Your task to perform on an android device: What's on my calendar today? Image 0: 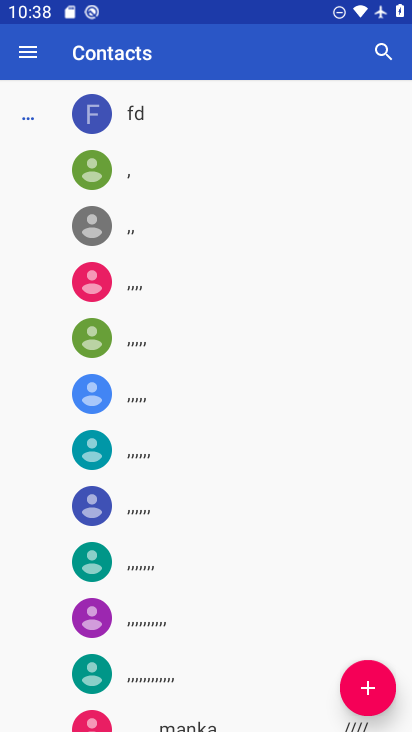
Step 0: press home button
Your task to perform on an android device: What's on my calendar today? Image 1: 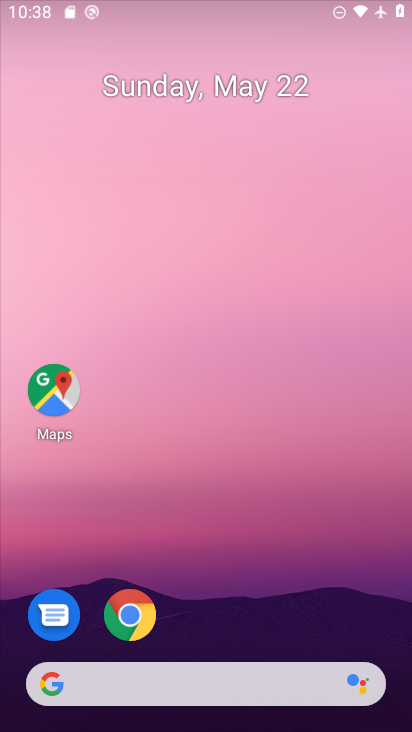
Step 1: drag from (305, 566) to (33, 274)
Your task to perform on an android device: What's on my calendar today? Image 2: 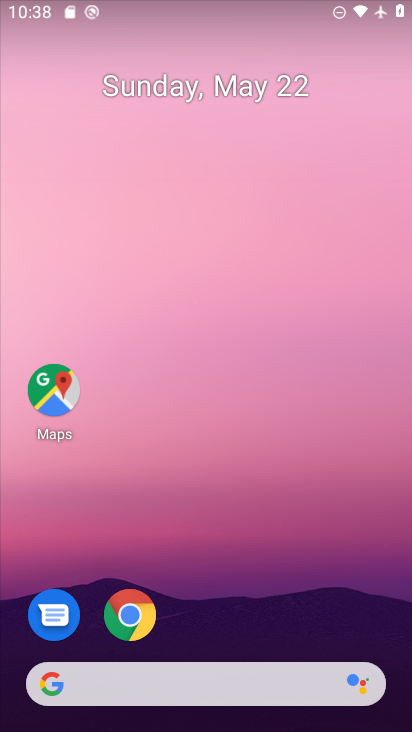
Step 2: drag from (333, 590) to (301, 106)
Your task to perform on an android device: What's on my calendar today? Image 3: 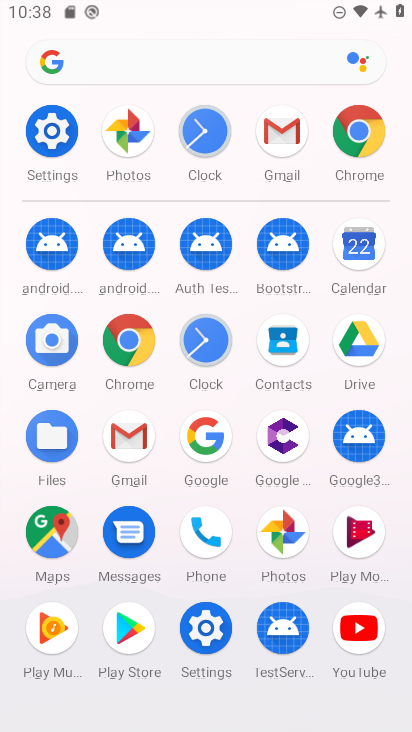
Step 3: click (350, 253)
Your task to perform on an android device: What's on my calendar today? Image 4: 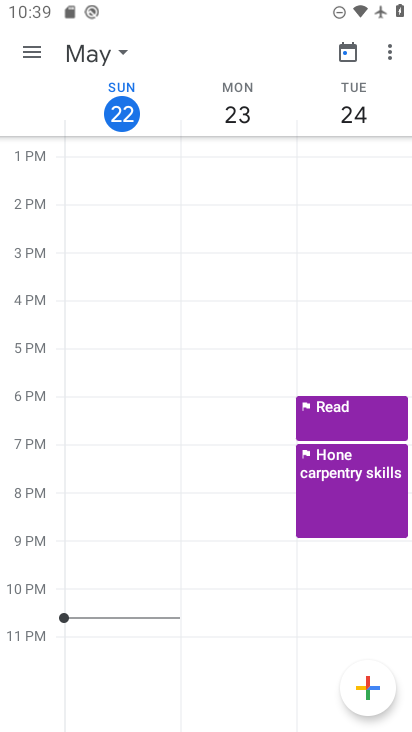
Step 4: click (231, 99)
Your task to perform on an android device: What's on my calendar today? Image 5: 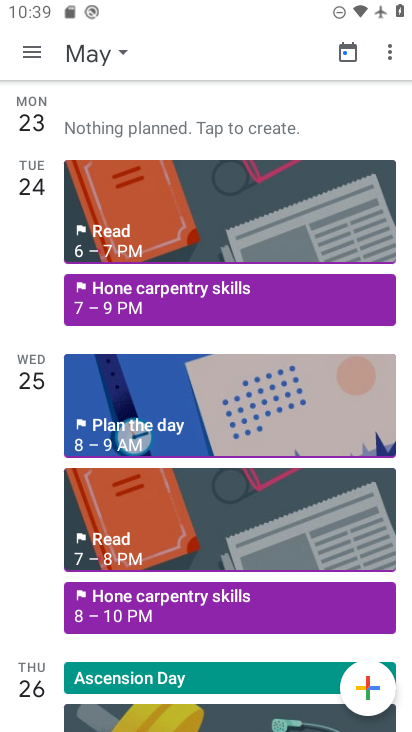
Step 5: click (17, 133)
Your task to perform on an android device: What's on my calendar today? Image 6: 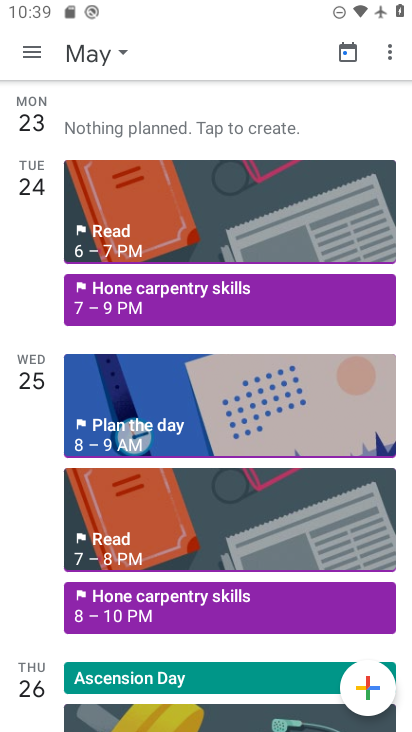
Step 6: click (29, 122)
Your task to perform on an android device: What's on my calendar today? Image 7: 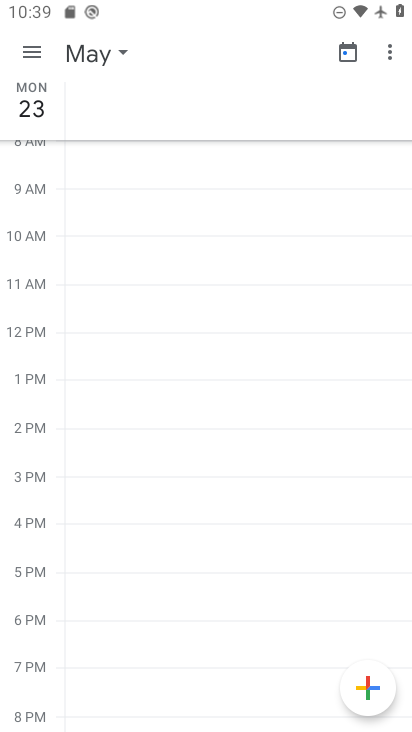
Step 7: click (103, 49)
Your task to perform on an android device: What's on my calendar today? Image 8: 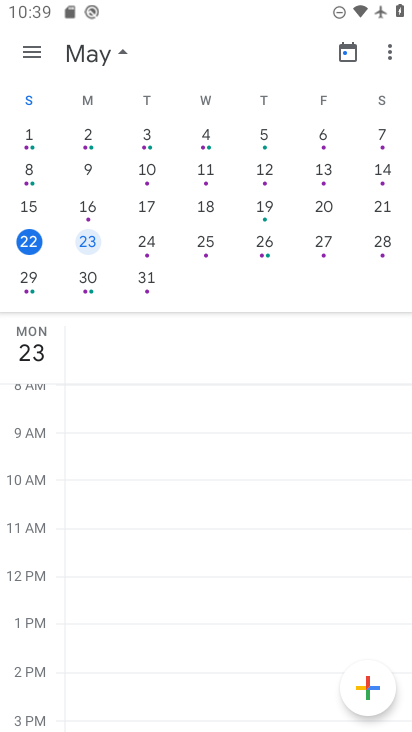
Step 8: click (27, 240)
Your task to perform on an android device: What's on my calendar today? Image 9: 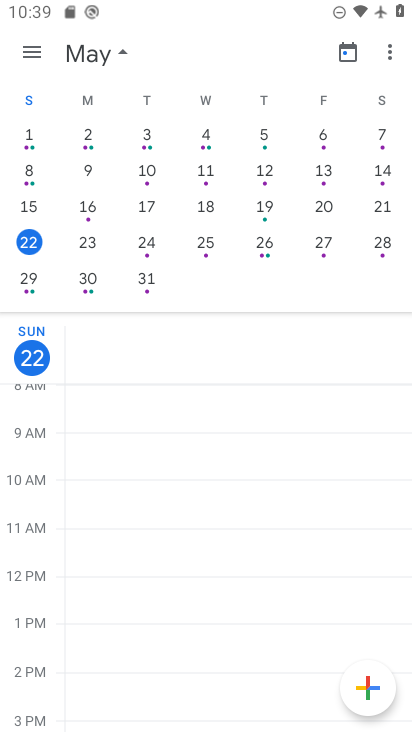
Step 9: task complete